Your task to perform on an android device: Show me recent news Image 0: 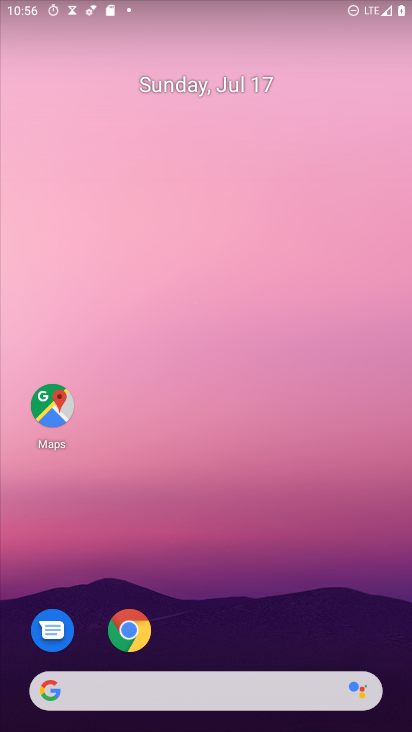
Step 0: drag from (221, 689) to (211, 168)
Your task to perform on an android device: Show me recent news Image 1: 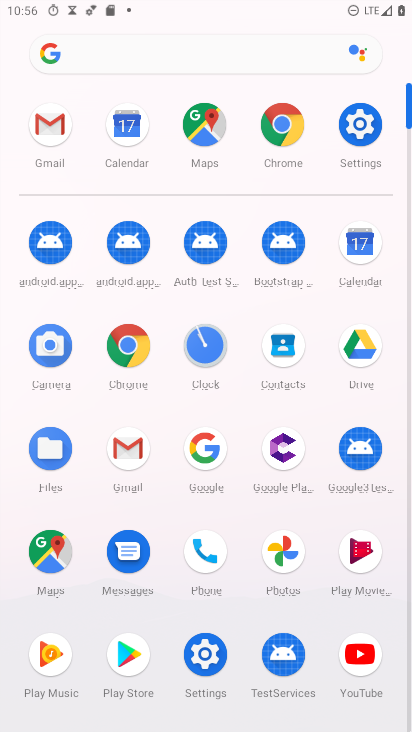
Step 1: click (132, 347)
Your task to perform on an android device: Show me recent news Image 2: 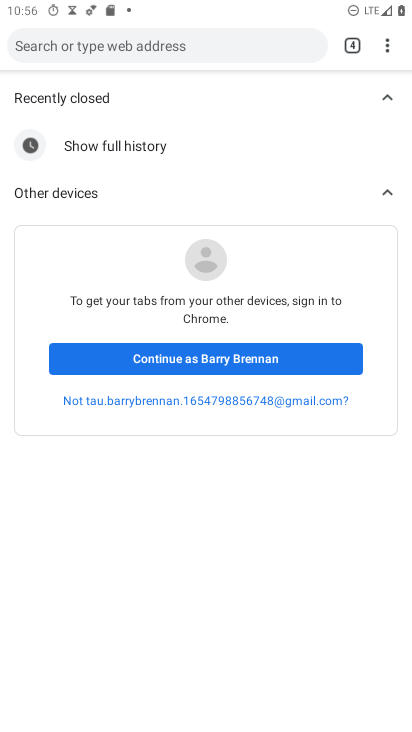
Step 2: click (155, 82)
Your task to perform on an android device: Show me recent news Image 3: 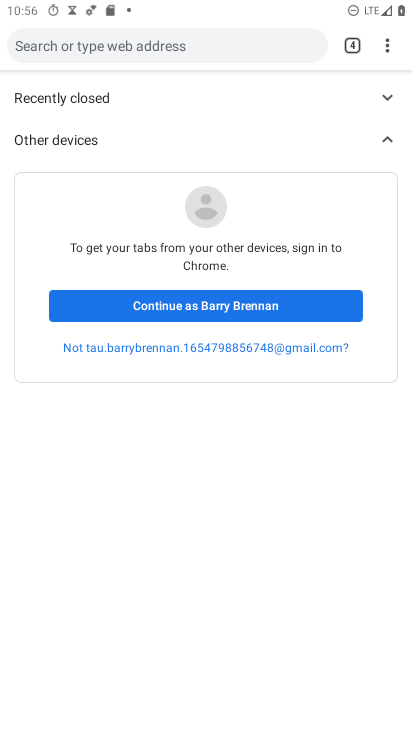
Step 3: click (159, 37)
Your task to perform on an android device: Show me recent news Image 4: 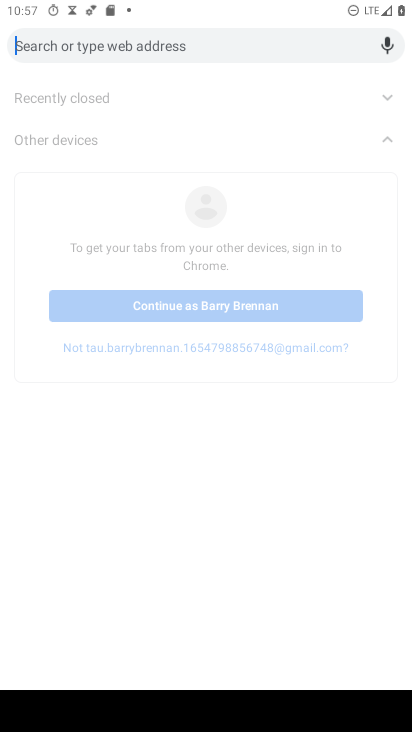
Step 4: type "recent news"
Your task to perform on an android device: Show me recent news Image 5: 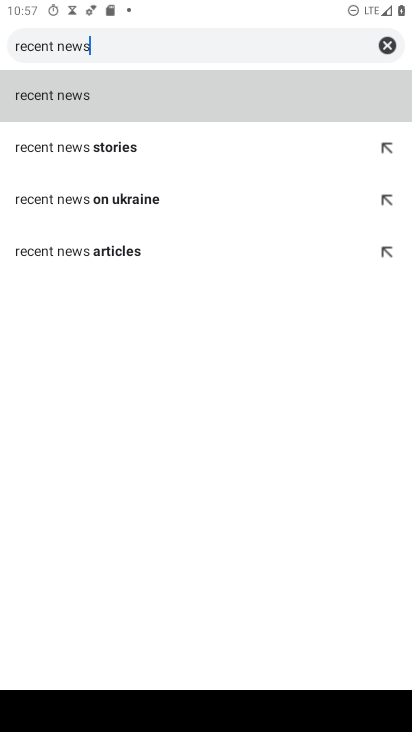
Step 5: click (57, 87)
Your task to perform on an android device: Show me recent news Image 6: 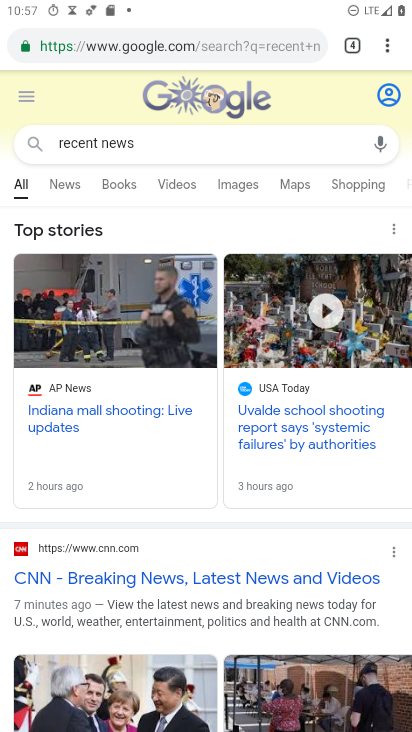
Step 6: task complete